Your task to perform on an android device: Open network settings Image 0: 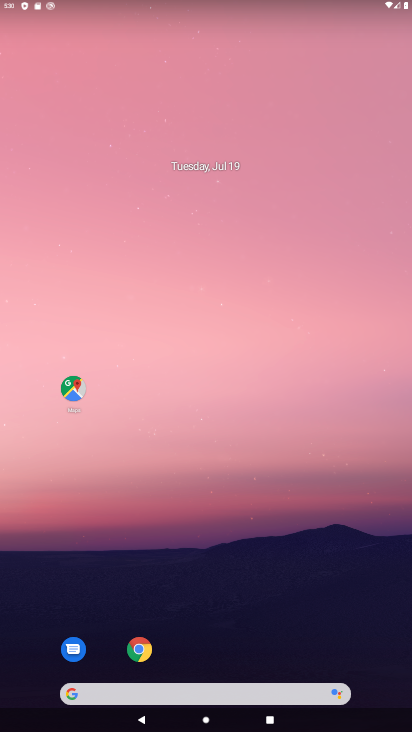
Step 0: drag from (282, 334) to (297, 92)
Your task to perform on an android device: Open network settings Image 1: 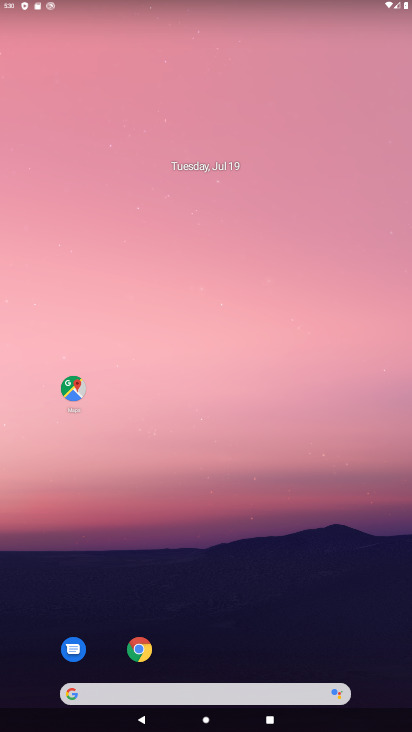
Step 1: drag from (259, 577) to (257, 50)
Your task to perform on an android device: Open network settings Image 2: 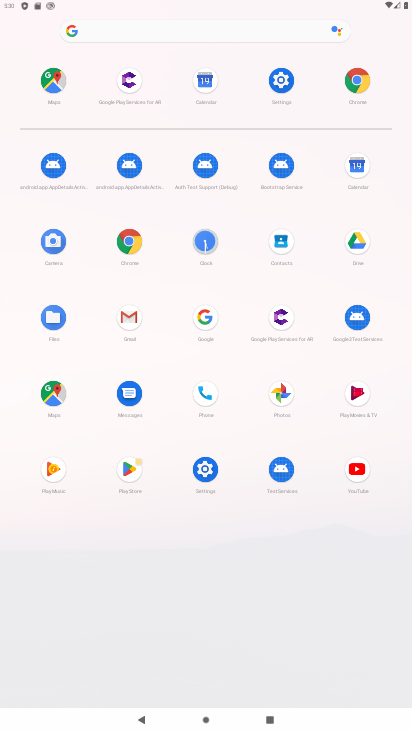
Step 2: click (280, 80)
Your task to perform on an android device: Open network settings Image 3: 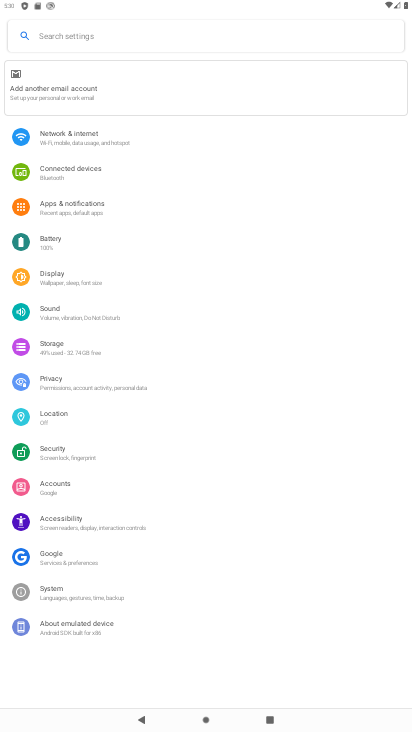
Step 3: click (61, 129)
Your task to perform on an android device: Open network settings Image 4: 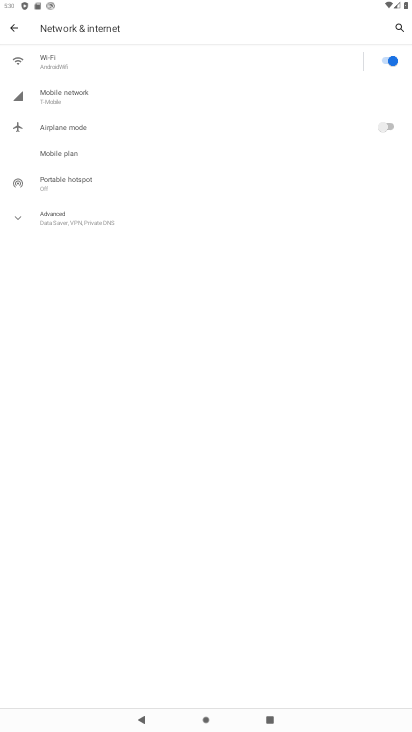
Step 4: task complete